Your task to perform on an android device: allow notifications from all sites in the chrome app Image 0: 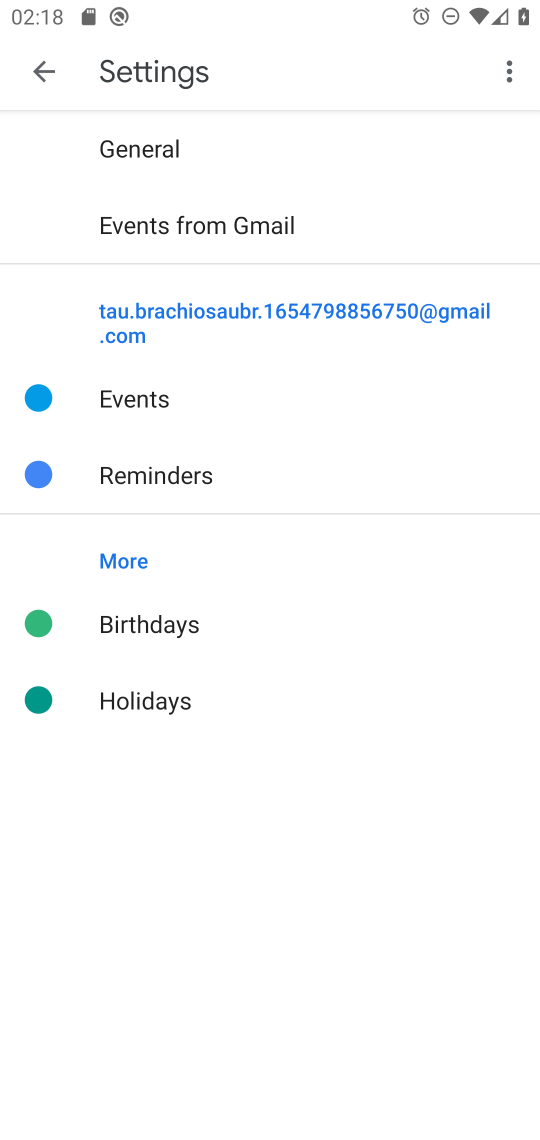
Step 0: press home button
Your task to perform on an android device: allow notifications from all sites in the chrome app Image 1: 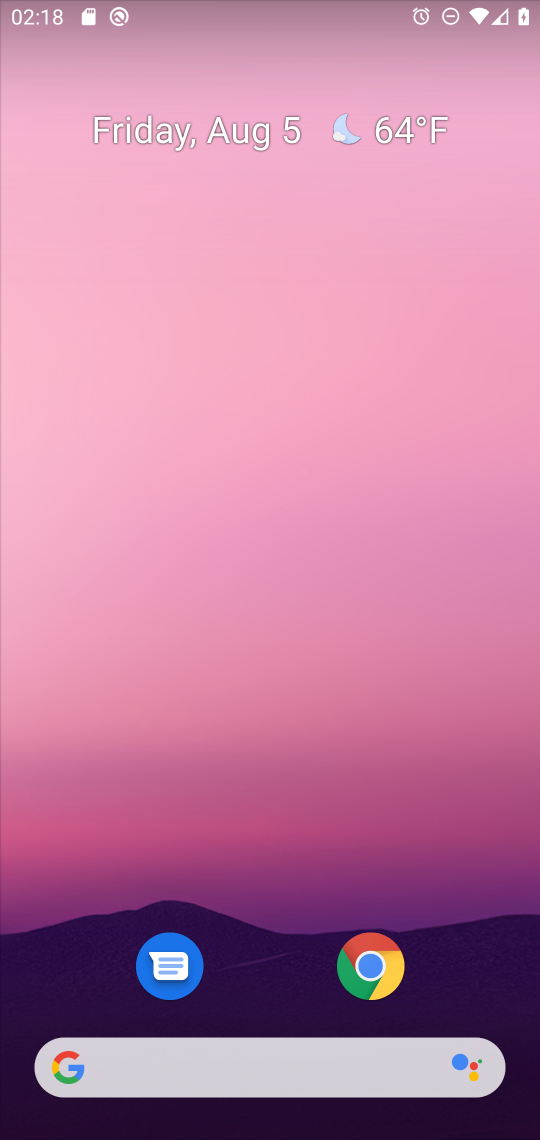
Step 1: click (365, 974)
Your task to perform on an android device: allow notifications from all sites in the chrome app Image 2: 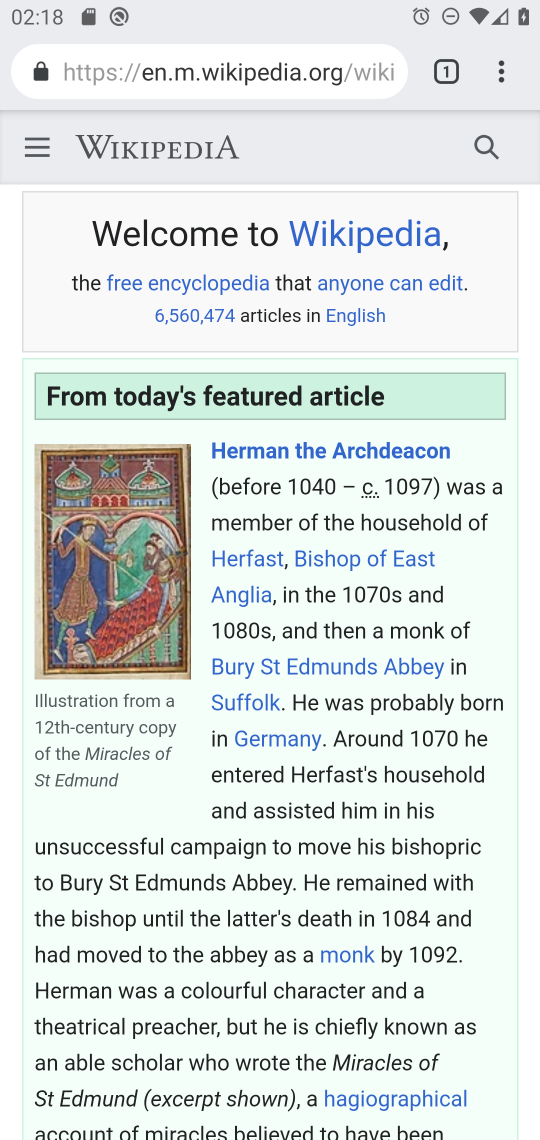
Step 2: click (509, 72)
Your task to perform on an android device: allow notifications from all sites in the chrome app Image 3: 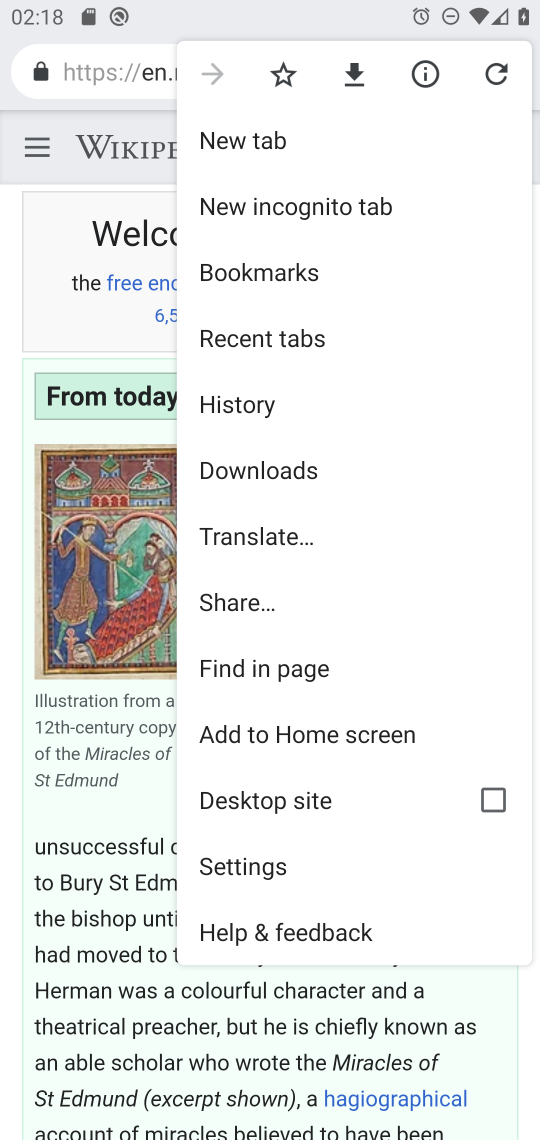
Step 3: click (282, 867)
Your task to perform on an android device: allow notifications from all sites in the chrome app Image 4: 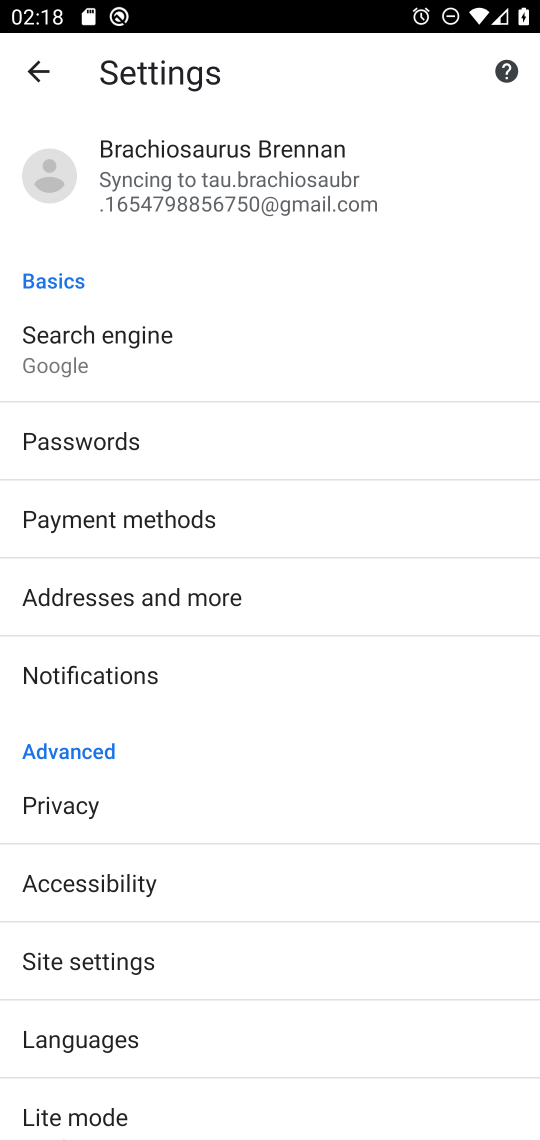
Step 4: click (214, 665)
Your task to perform on an android device: allow notifications from all sites in the chrome app Image 5: 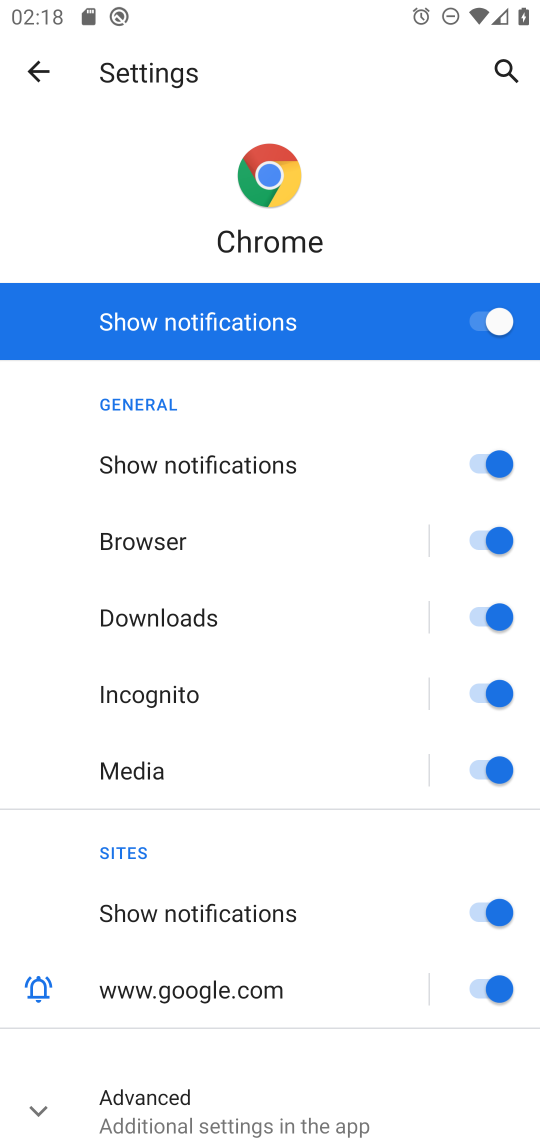
Step 5: task complete